Your task to perform on an android device: Open Amazon Image 0: 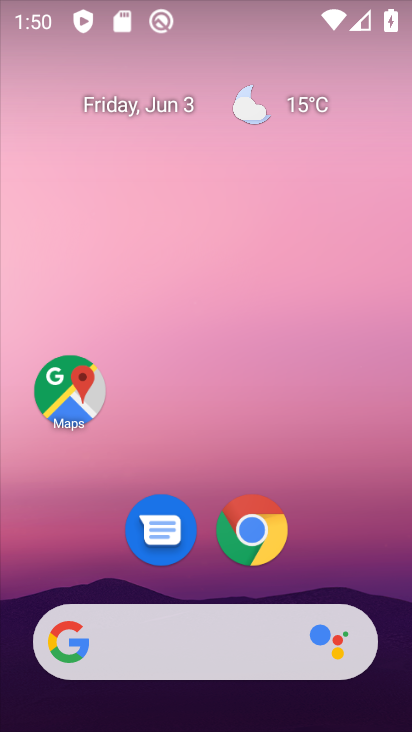
Step 0: click (260, 532)
Your task to perform on an android device: Open Amazon Image 1: 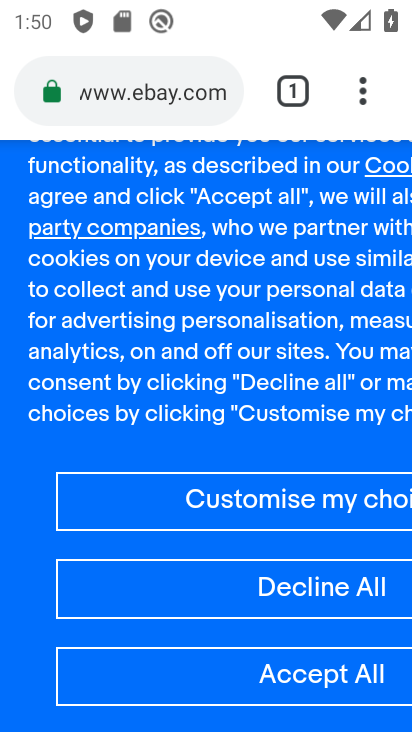
Step 1: press back button
Your task to perform on an android device: Open Amazon Image 2: 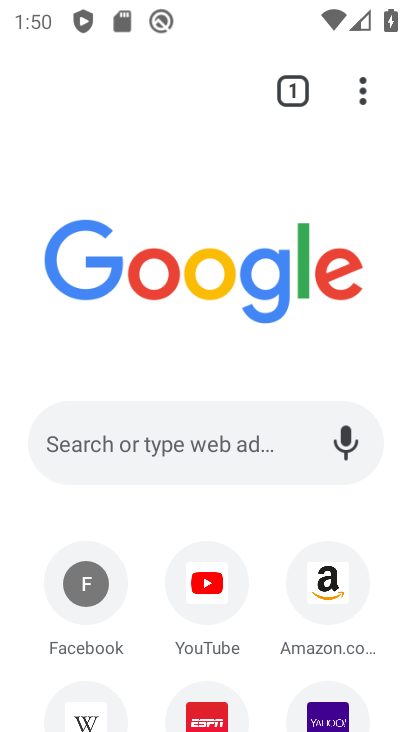
Step 2: click (313, 580)
Your task to perform on an android device: Open Amazon Image 3: 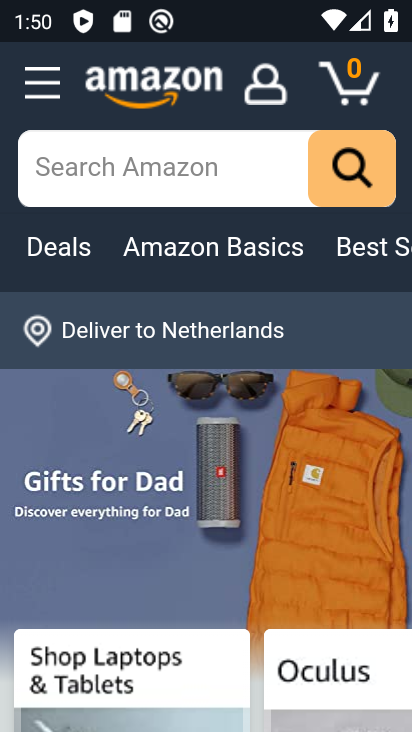
Step 3: task complete